Your task to perform on an android device: toggle notification dots Image 0: 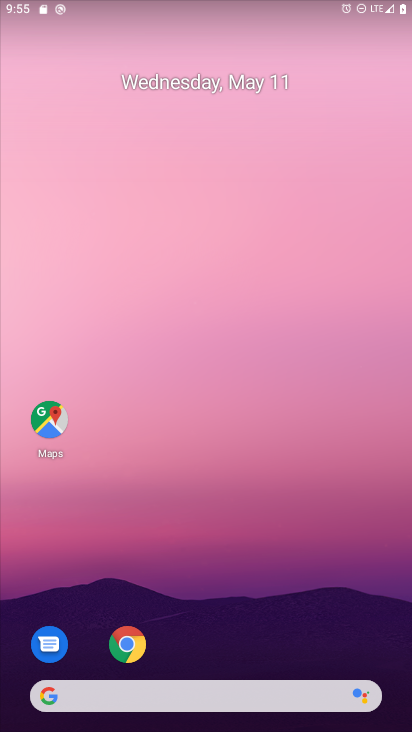
Step 0: drag from (245, 589) to (131, 69)
Your task to perform on an android device: toggle notification dots Image 1: 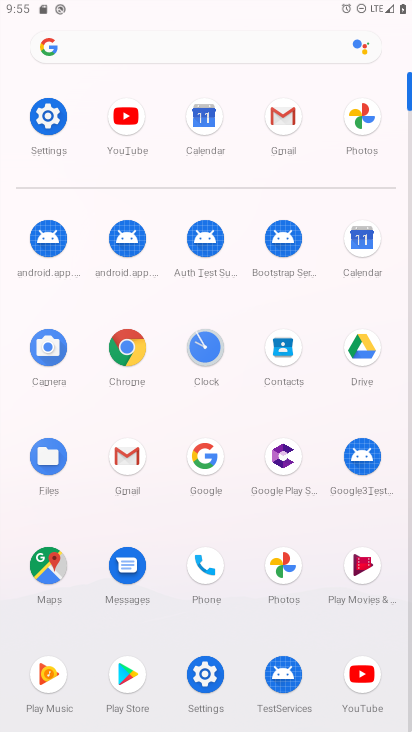
Step 1: click (53, 113)
Your task to perform on an android device: toggle notification dots Image 2: 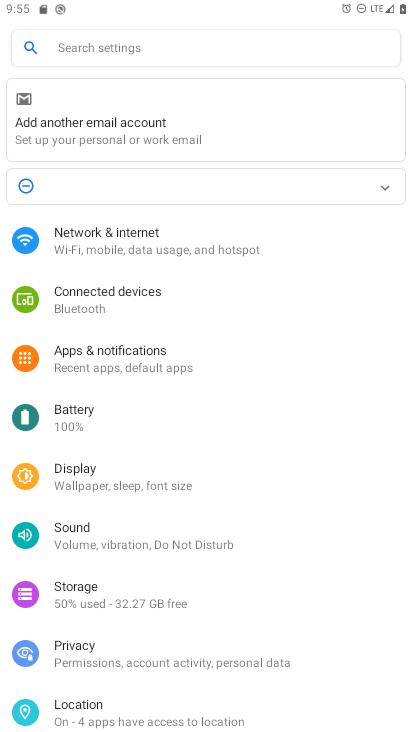
Step 2: click (137, 351)
Your task to perform on an android device: toggle notification dots Image 3: 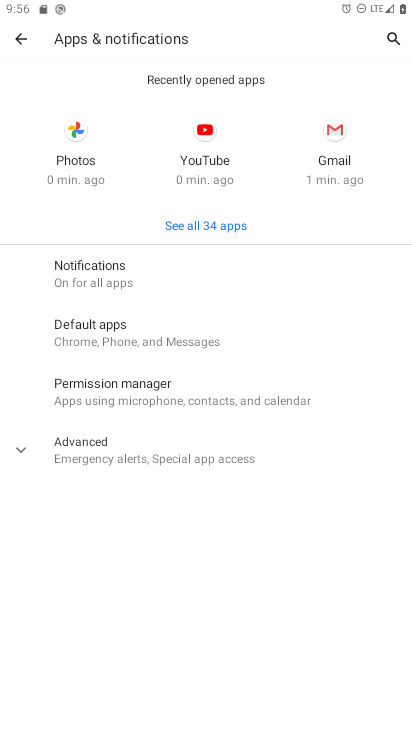
Step 3: click (95, 263)
Your task to perform on an android device: toggle notification dots Image 4: 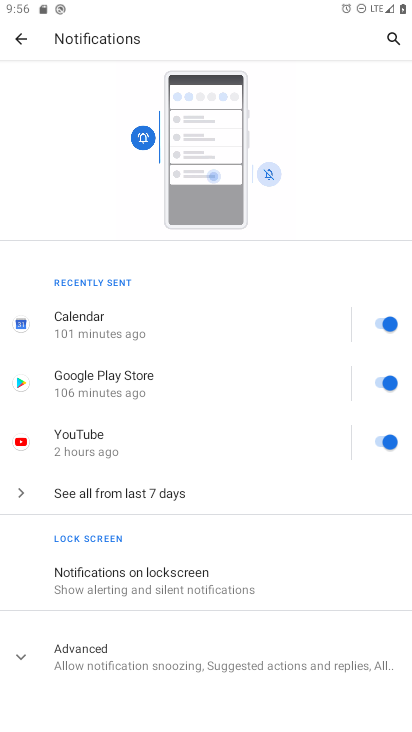
Step 4: drag from (215, 622) to (189, 422)
Your task to perform on an android device: toggle notification dots Image 5: 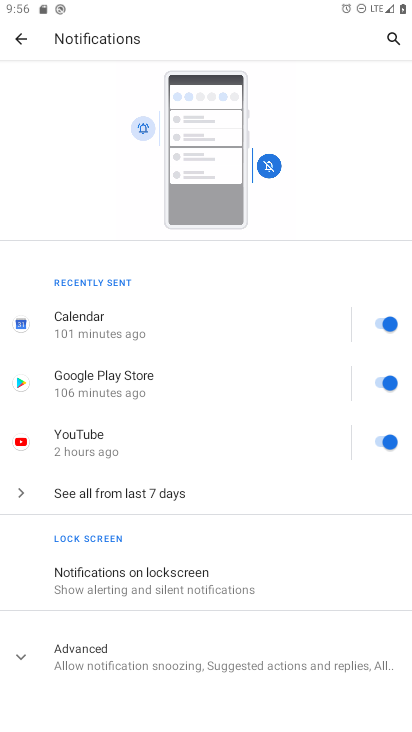
Step 5: click (48, 653)
Your task to perform on an android device: toggle notification dots Image 6: 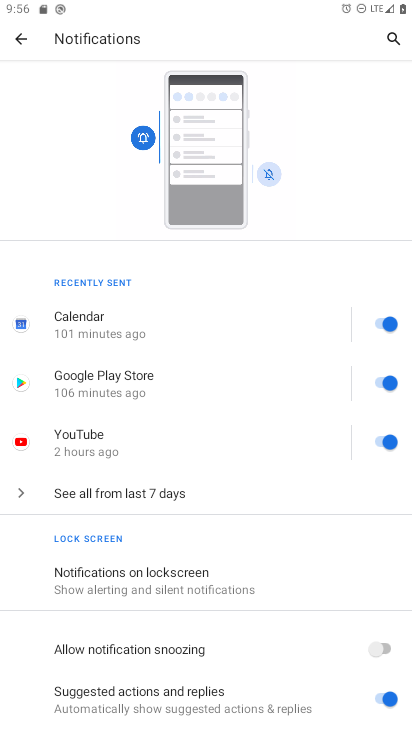
Step 6: drag from (249, 604) to (233, 461)
Your task to perform on an android device: toggle notification dots Image 7: 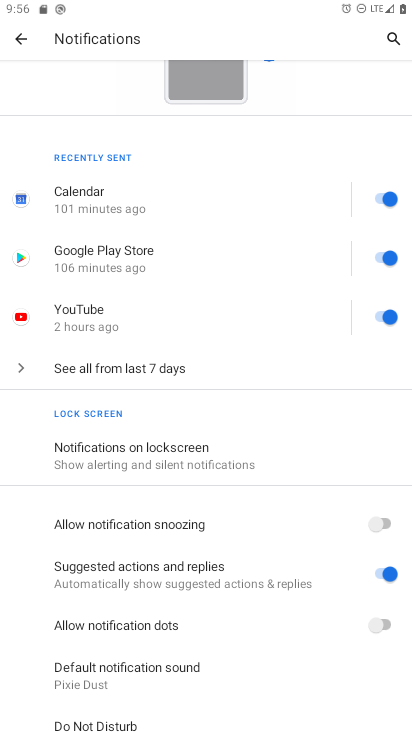
Step 7: click (379, 632)
Your task to perform on an android device: toggle notification dots Image 8: 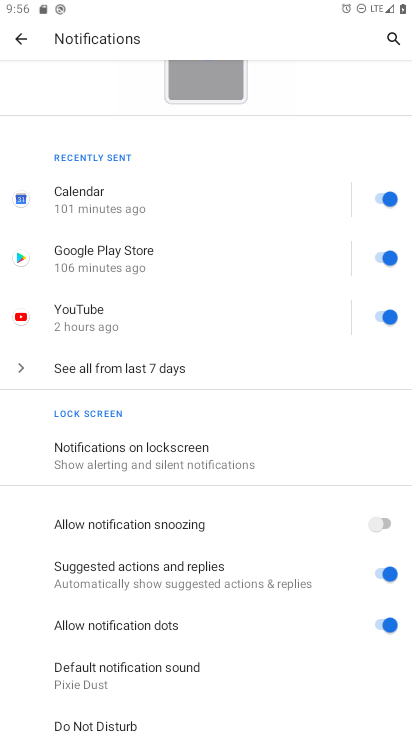
Step 8: task complete